Your task to perform on an android device: Open settings on Google Maps Image 0: 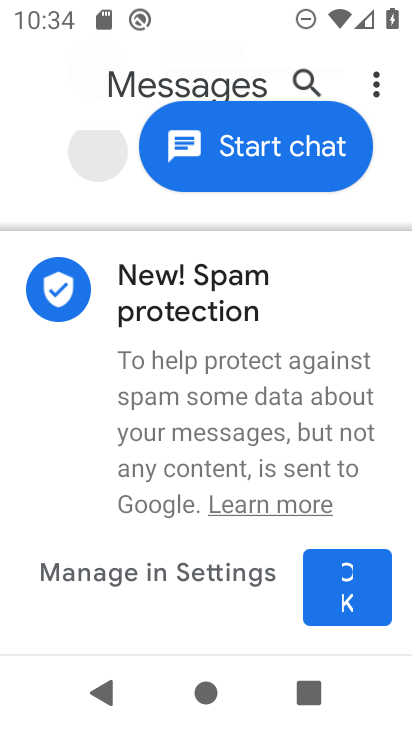
Step 0: press home button
Your task to perform on an android device: Open settings on Google Maps Image 1: 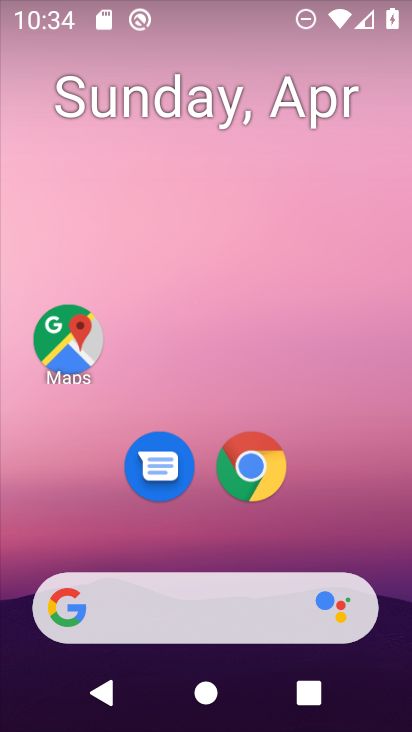
Step 1: drag from (364, 534) to (361, 142)
Your task to perform on an android device: Open settings on Google Maps Image 2: 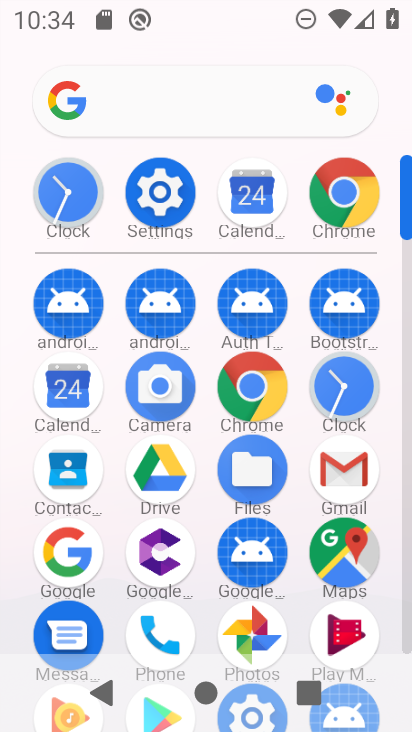
Step 2: click (362, 547)
Your task to perform on an android device: Open settings on Google Maps Image 3: 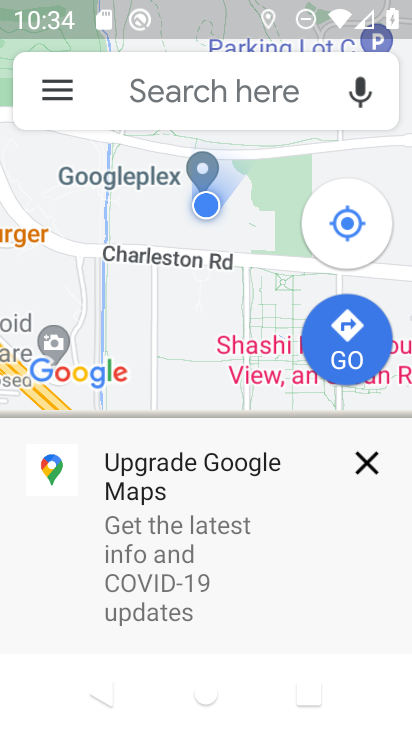
Step 3: task complete